Your task to perform on an android device: Search for razer thresher on walmart.com, select the first entry, add it to the cart, then select checkout. Image 0: 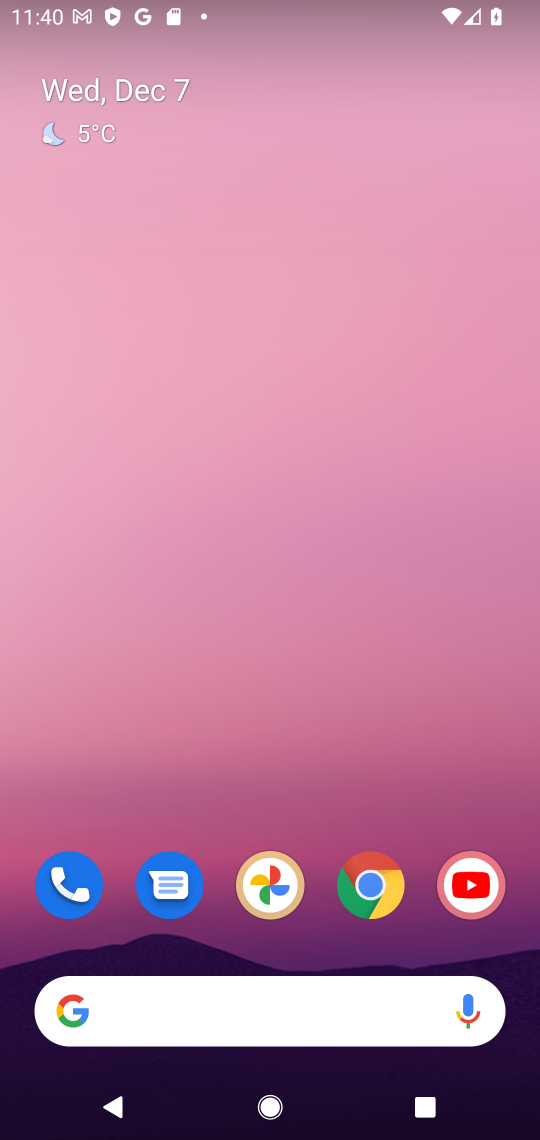
Step 0: click (373, 889)
Your task to perform on an android device: Search for razer thresher on walmart.com, select the first entry, add it to the cart, then select checkout. Image 1: 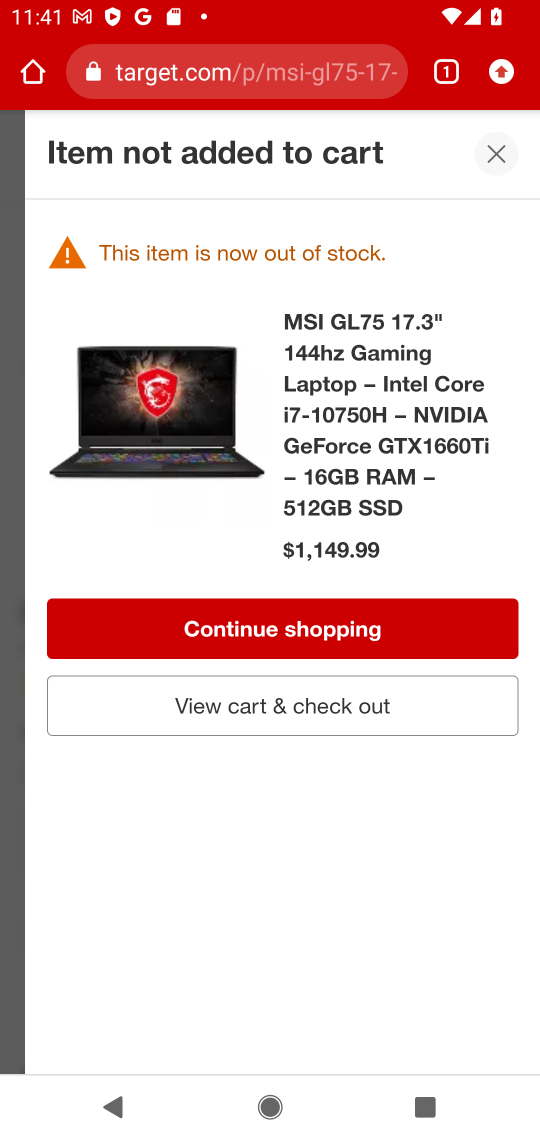
Step 1: click (307, 80)
Your task to perform on an android device: Search for razer thresher on walmart.com, select the first entry, add it to the cart, then select checkout. Image 2: 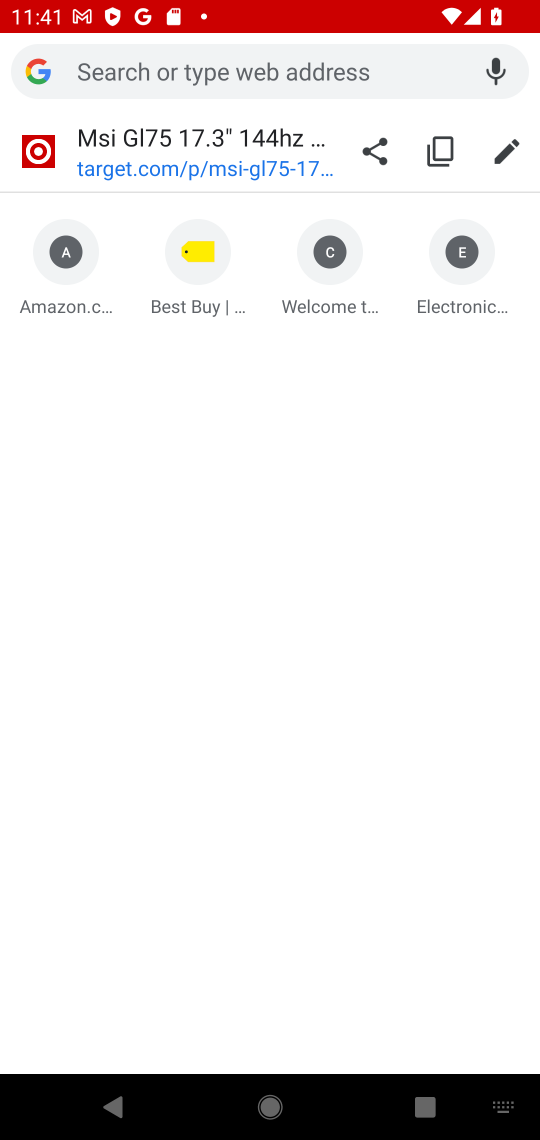
Step 2: type "WALMART"
Your task to perform on an android device: Search for razer thresher on walmart.com, select the first entry, add it to the cart, then select checkout. Image 3: 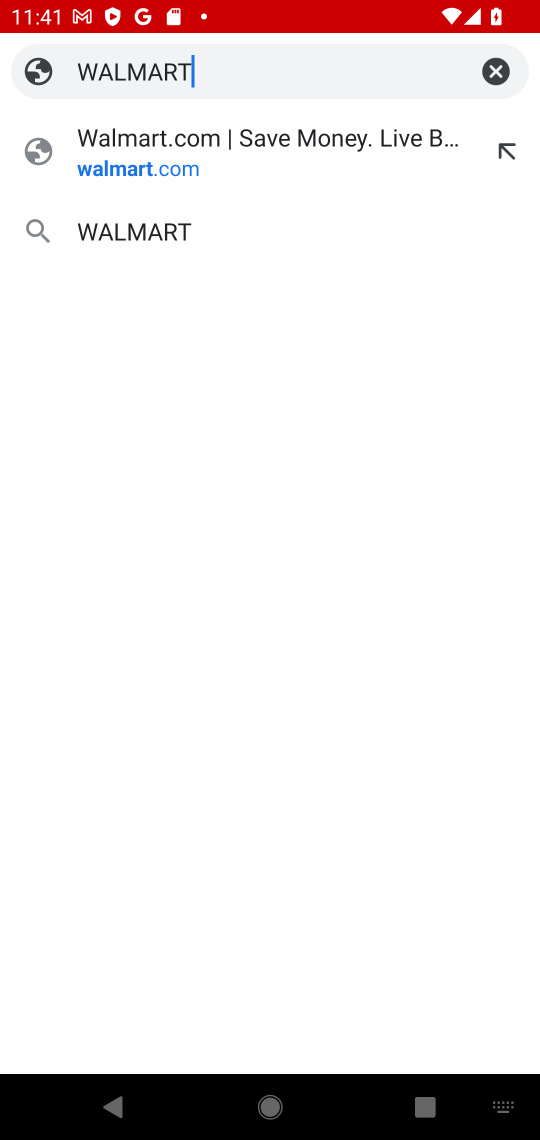
Step 3: click (168, 145)
Your task to perform on an android device: Search for razer thresher on walmart.com, select the first entry, add it to the cart, then select checkout. Image 4: 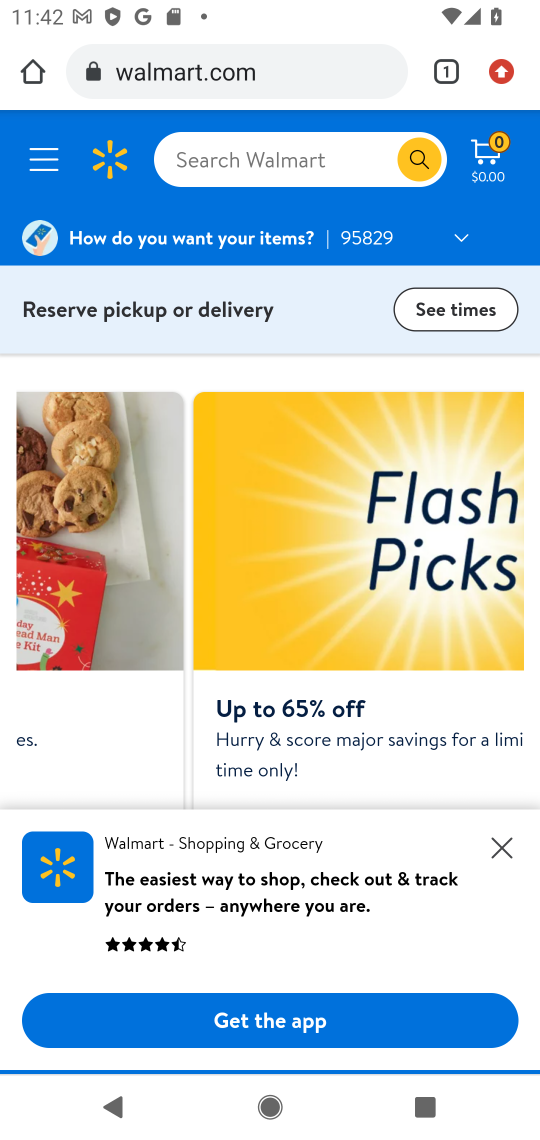
Step 4: click (497, 844)
Your task to perform on an android device: Search for razer thresher on walmart.com, select the first entry, add it to the cart, then select checkout. Image 5: 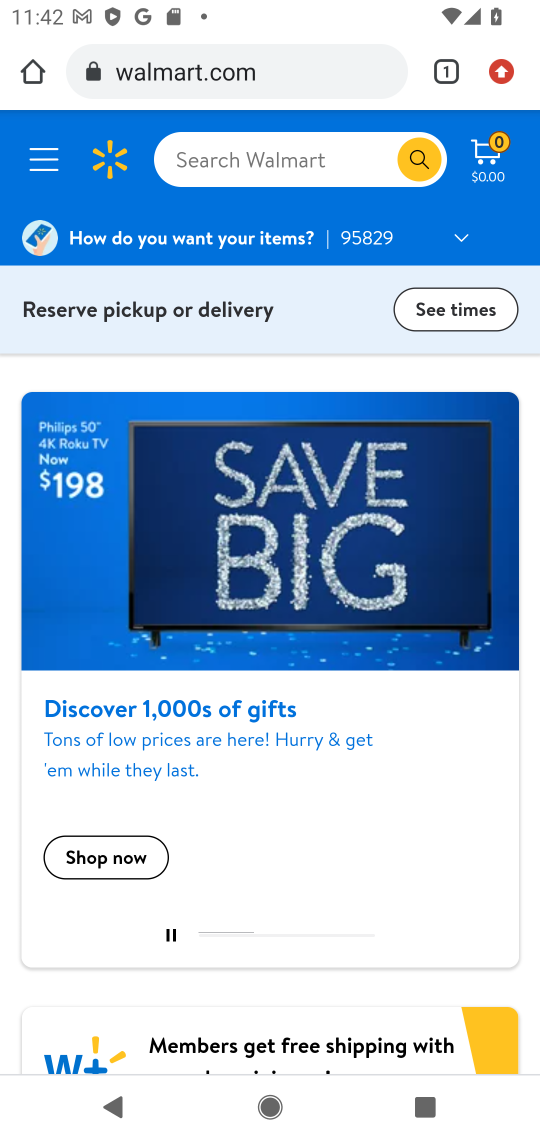
Step 5: click (314, 171)
Your task to perform on an android device: Search for razer thresher on walmart.com, select the first entry, add it to the cart, then select checkout. Image 6: 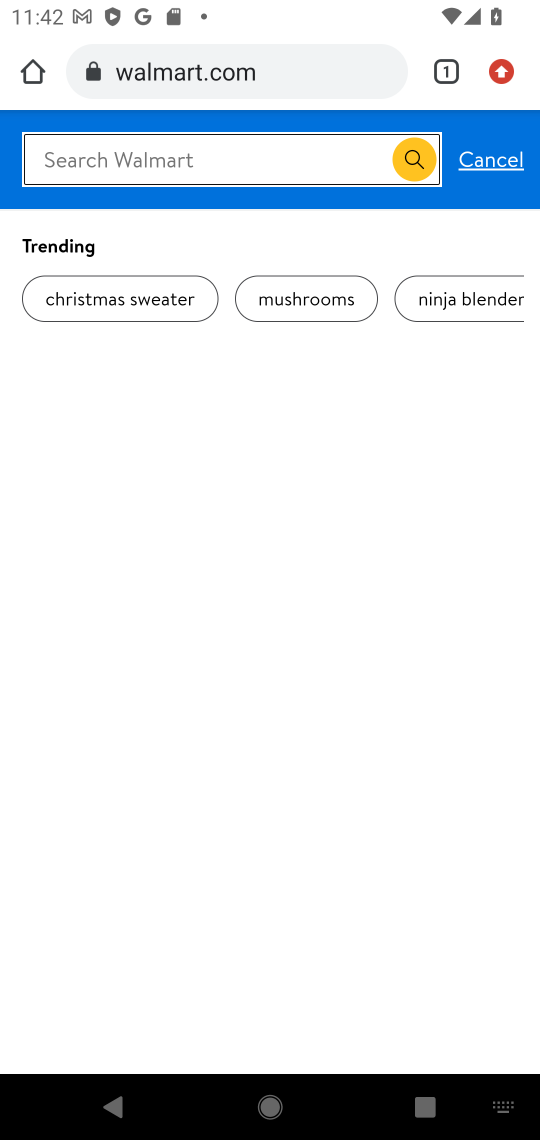
Step 6: type "RAZER THRESHER"
Your task to perform on an android device: Search for razer thresher on walmart.com, select the first entry, add it to the cart, then select checkout. Image 7: 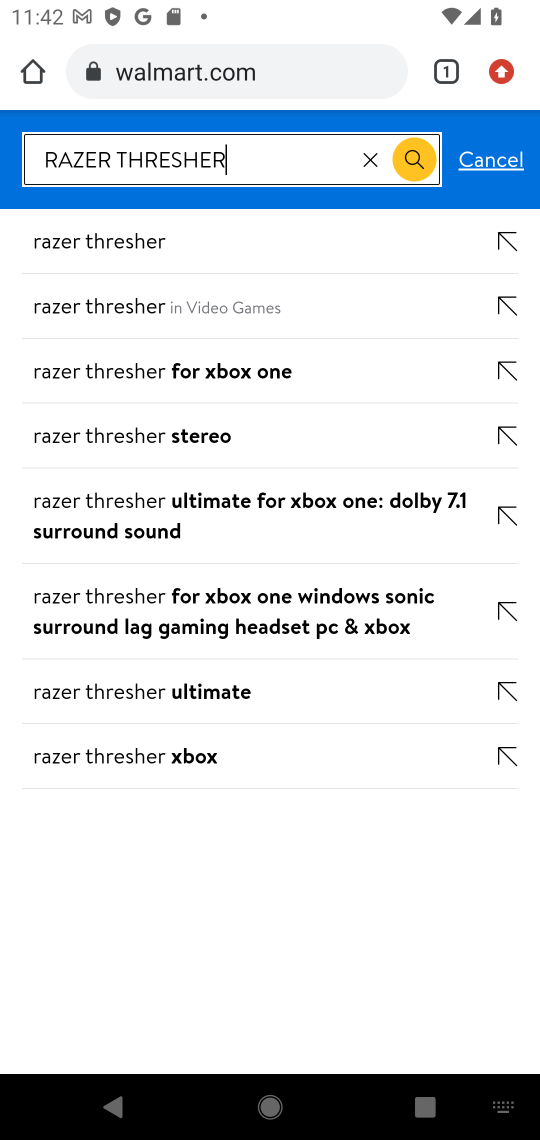
Step 7: click (99, 242)
Your task to perform on an android device: Search for razer thresher on walmart.com, select the first entry, add it to the cart, then select checkout. Image 8: 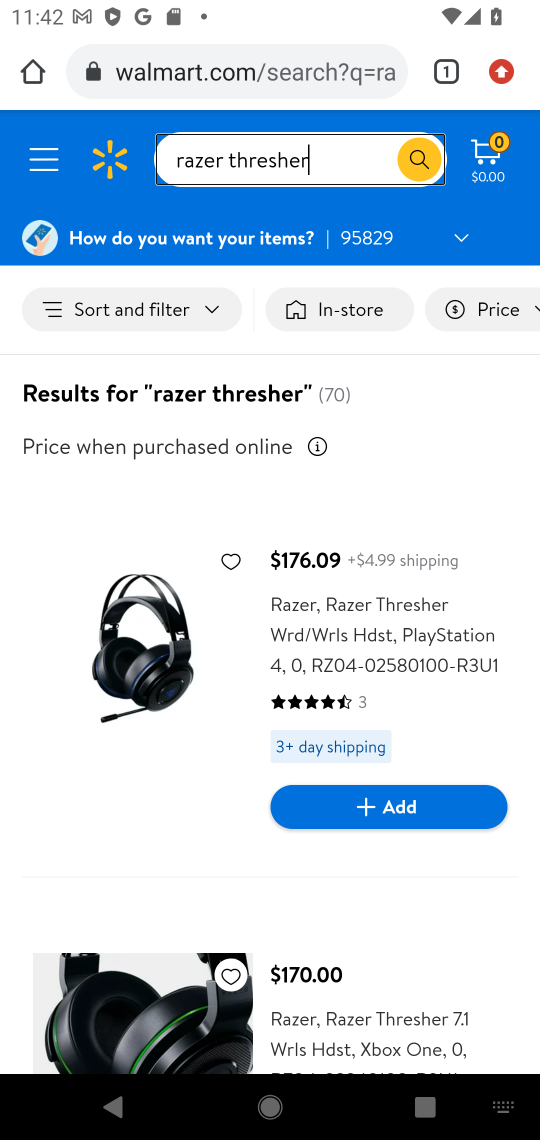
Step 8: click (409, 813)
Your task to perform on an android device: Search for razer thresher on walmart.com, select the first entry, add it to the cart, then select checkout. Image 9: 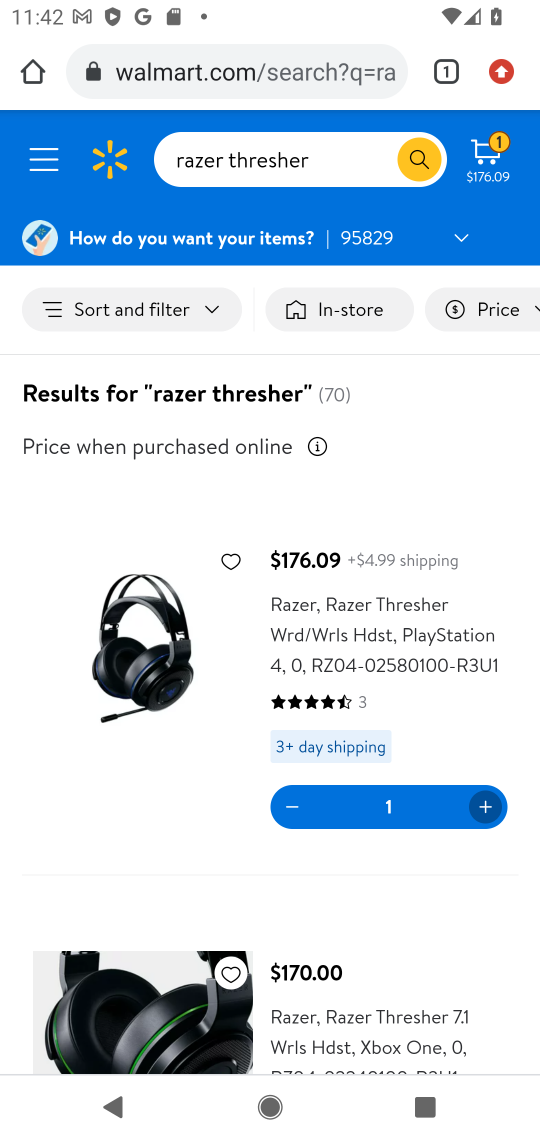
Step 9: click (486, 153)
Your task to perform on an android device: Search for razer thresher on walmart.com, select the first entry, add it to the cart, then select checkout. Image 10: 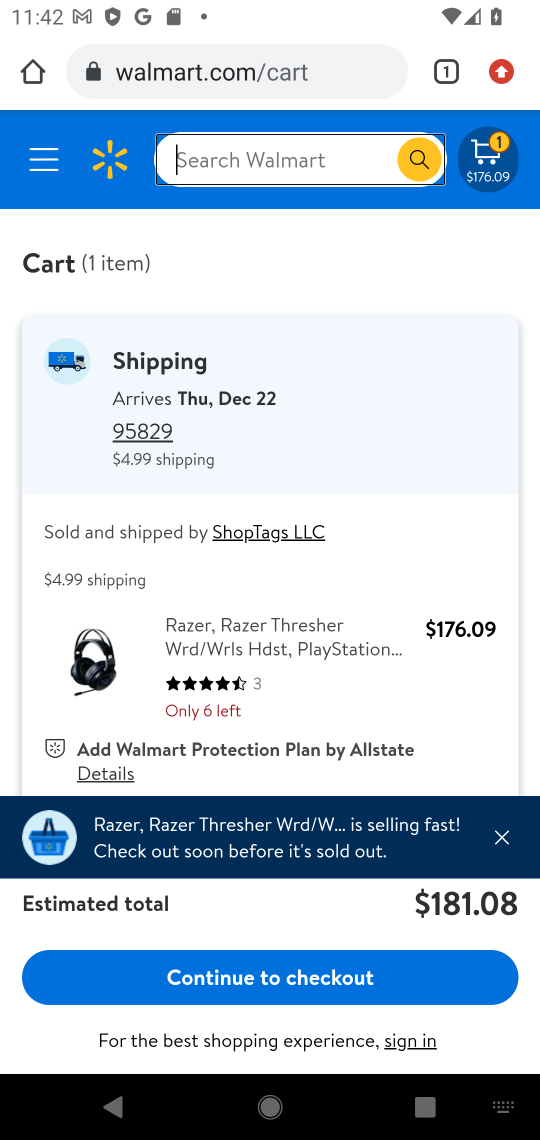
Step 10: click (281, 987)
Your task to perform on an android device: Search for razer thresher on walmart.com, select the first entry, add it to the cart, then select checkout. Image 11: 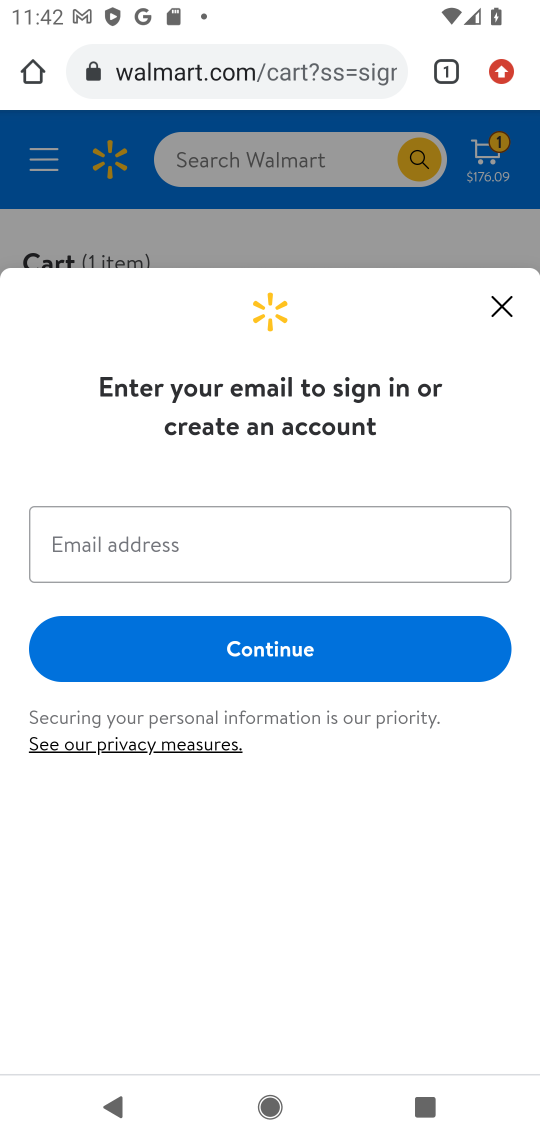
Step 11: task complete